Your task to perform on an android device: open sync settings in chrome Image 0: 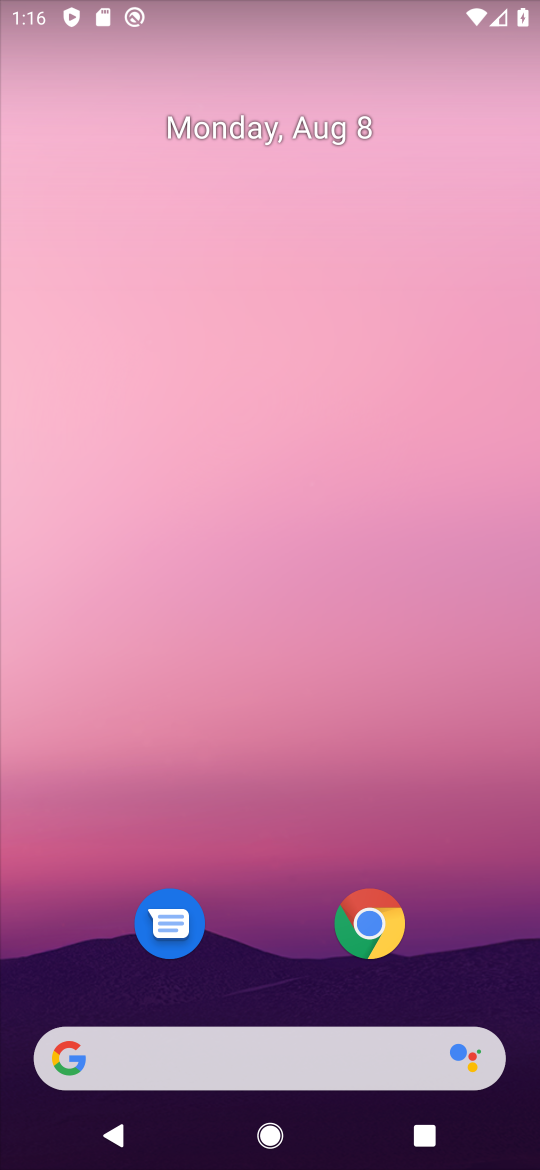
Step 0: click (390, 936)
Your task to perform on an android device: open sync settings in chrome Image 1: 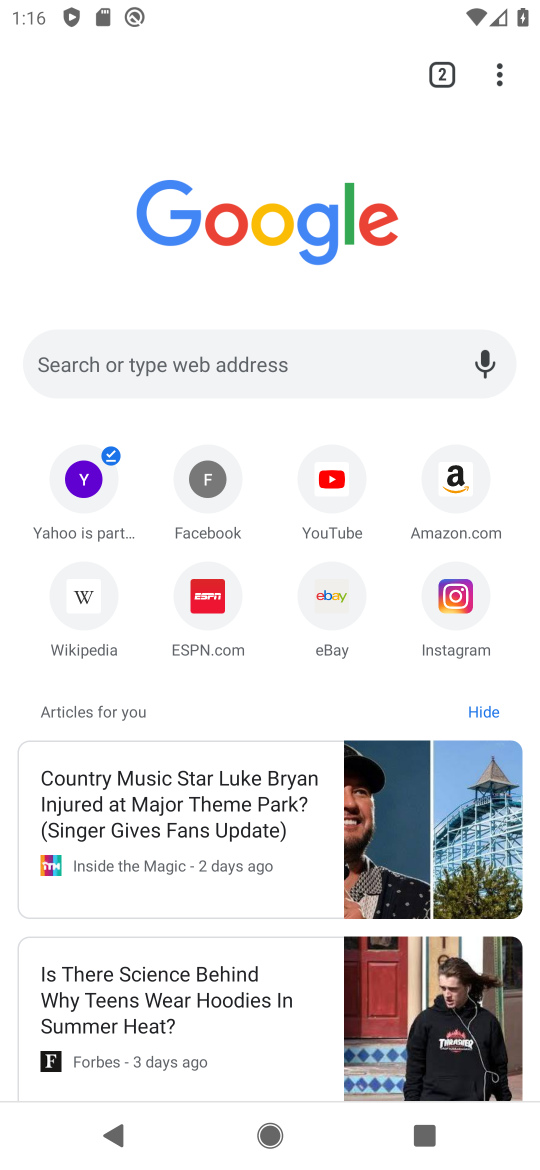
Step 1: click (495, 77)
Your task to perform on an android device: open sync settings in chrome Image 2: 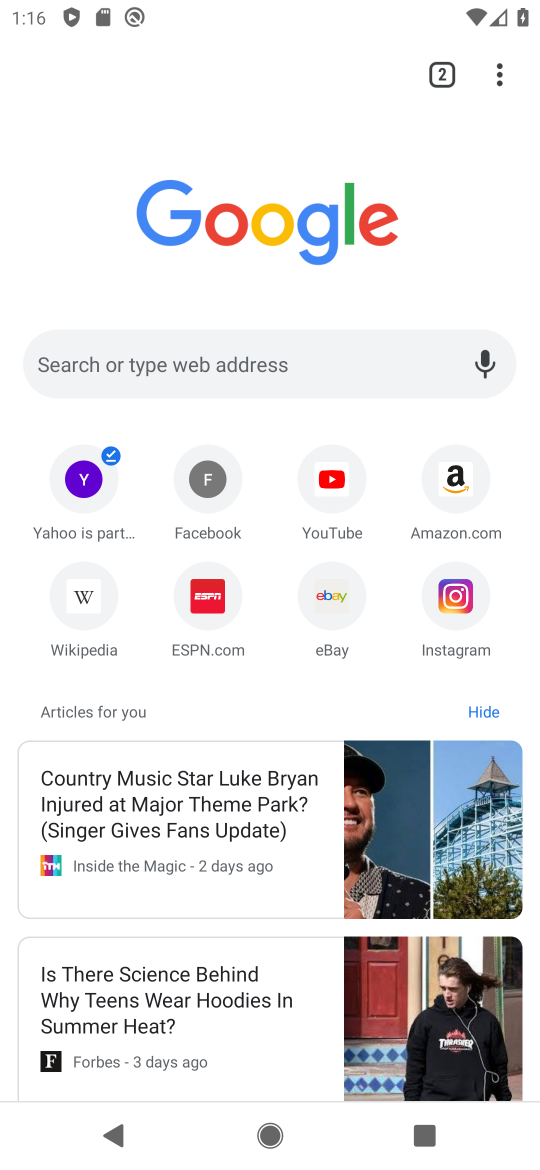
Step 2: click (506, 66)
Your task to perform on an android device: open sync settings in chrome Image 3: 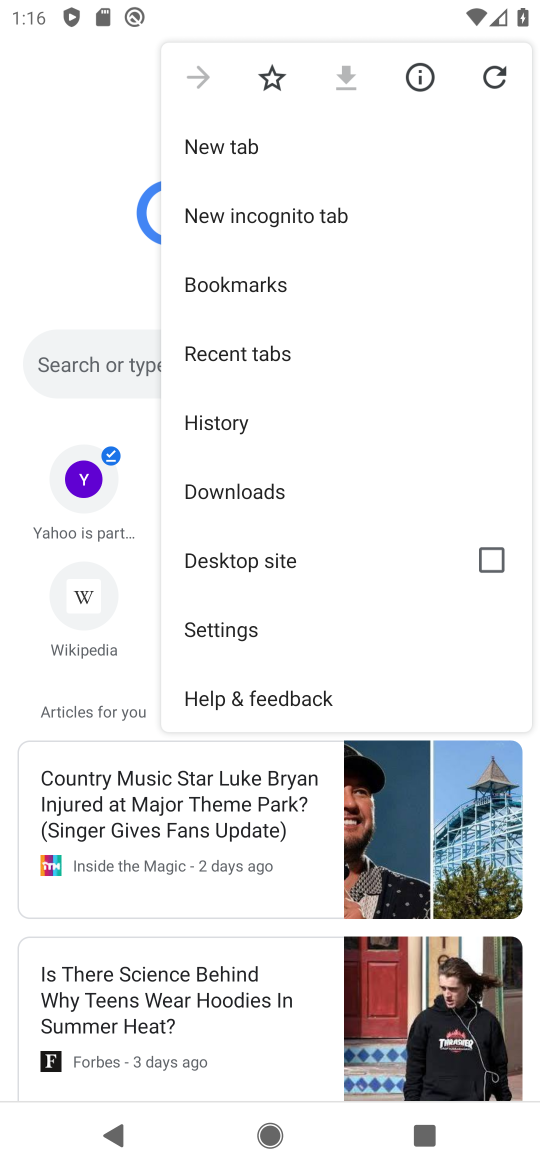
Step 3: task complete